Your task to perform on an android device: toggle priority inbox in the gmail app Image 0: 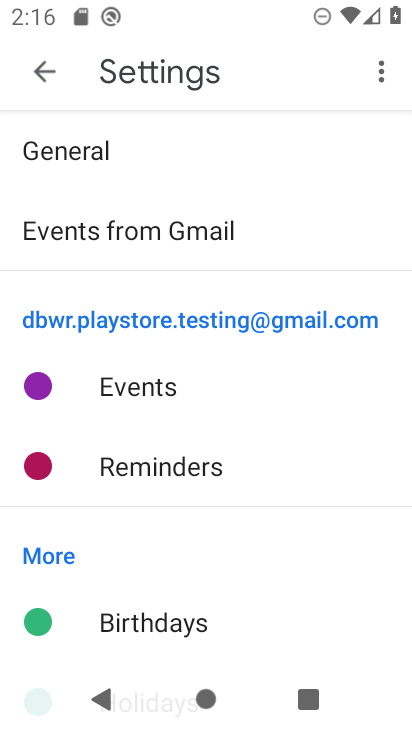
Step 0: press home button
Your task to perform on an android device: toggle priority inbox in the gmail app Image 1: 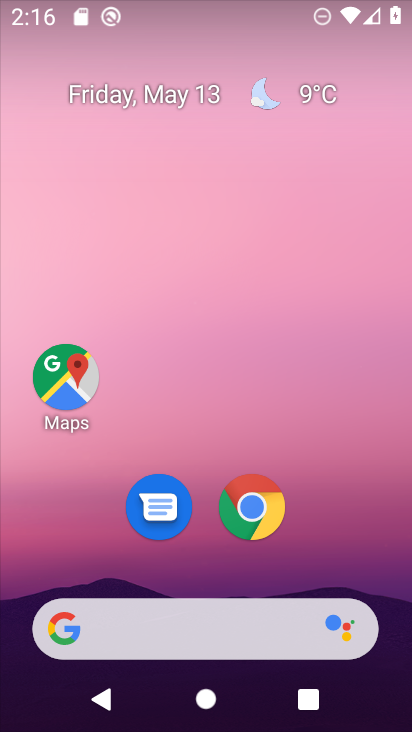
Step 1: drag from (335, 512) to (365, 19)
Your task to perform on an android device: toggle priority inbox in the gmail app Image 2: 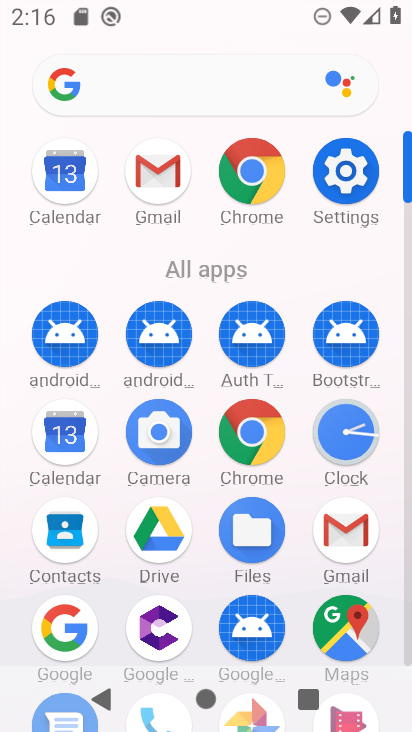
Step 2: click (163, 177)
Your task to perform on an android device: toggle priority inbox in the gmail app Image 3: 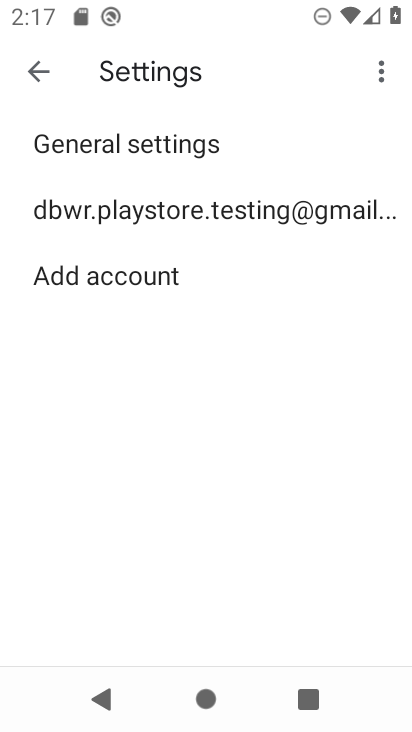
Step 3: click (27, 70)
Your task to perform on an android device: toggle priority inbox in the gmail app Image 4: 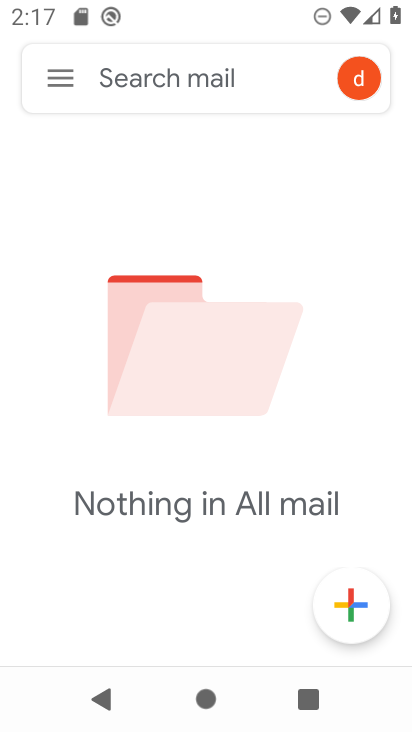
Step 4: click (27, 70)
Your task to perform on an android device: toggle priority inbox in the gmail app Image 5: 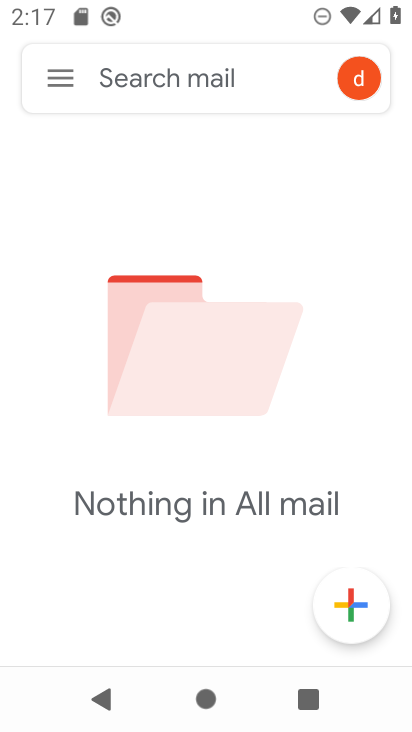
Step 5: click (68, 80)
Your task to perform on an android device: toggle priority inbox in the gmail app Image 6: 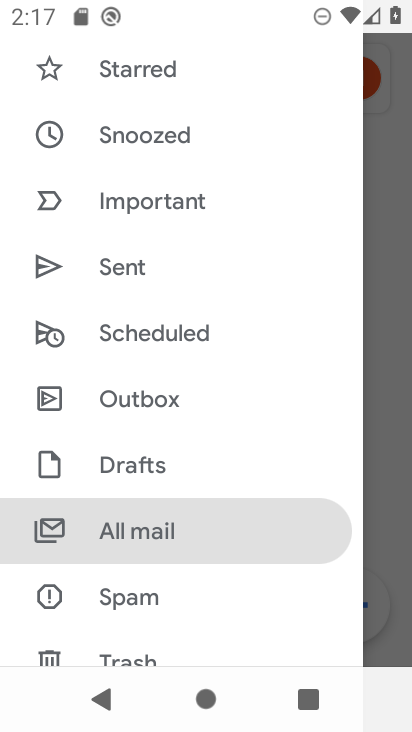
Step 6: drag from (157, 567) to (205, 224)
Your task to perform on an android device: toggle priority inbox in the gmail app Image 7: 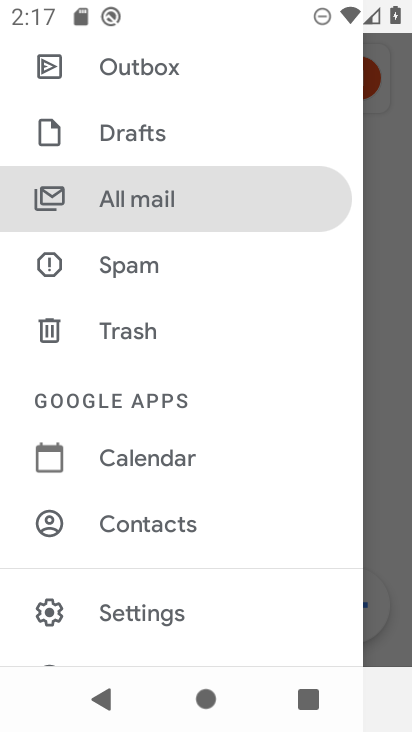
Step 7: click (158, 600)
Your task to perform on an android device: toggle priority inbox in the gmail app Image 8: 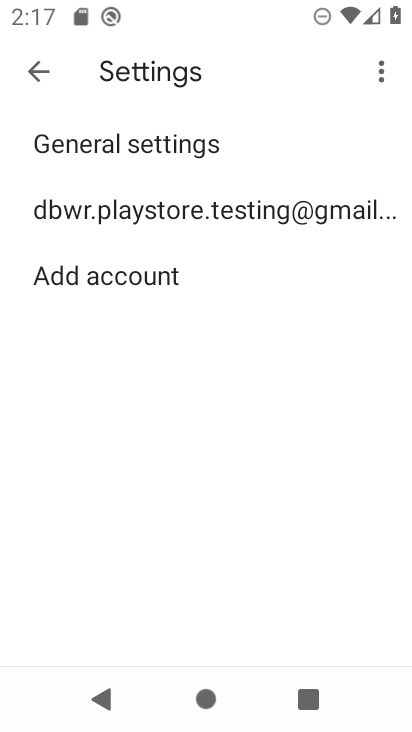
Step 8: click (129, 212)
Your task to perform on an android device: toggle priority inbox in the gmail app Image 9: 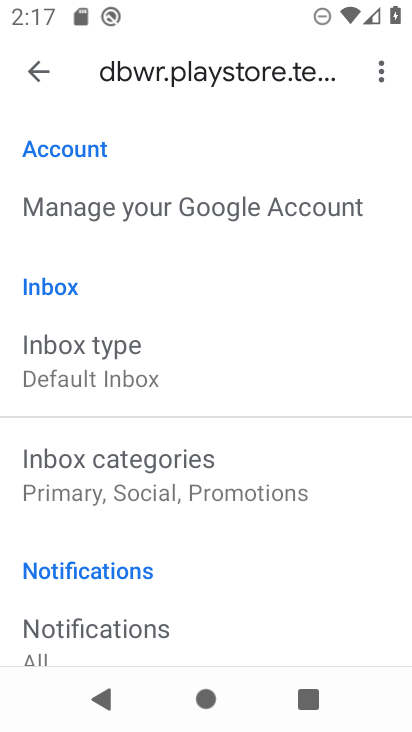
Step 9: click (88, 364)
Your task to perform on an android device: toggle priority inbox in the gmail app Image 10: 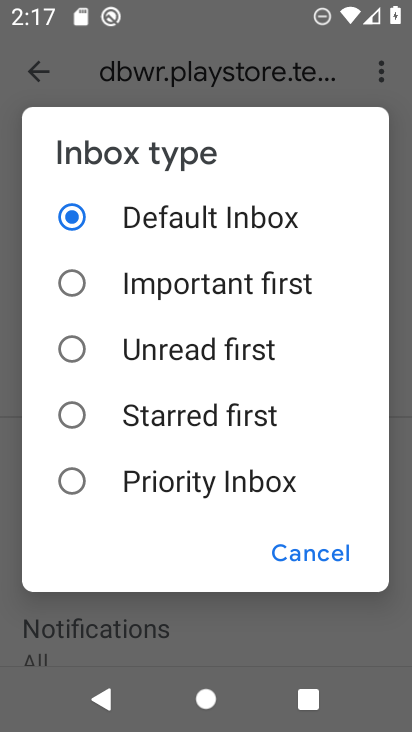
Step 10: click (76, 480)
Your task to perform on an android device: toggle priority inbox in the gmail app Image 11: 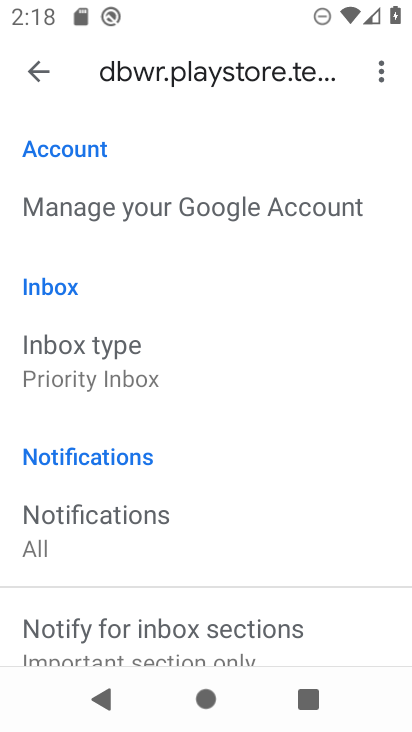
Step 11: task complete